Your task to perform on an android device: Open ESPN.com Image 0: 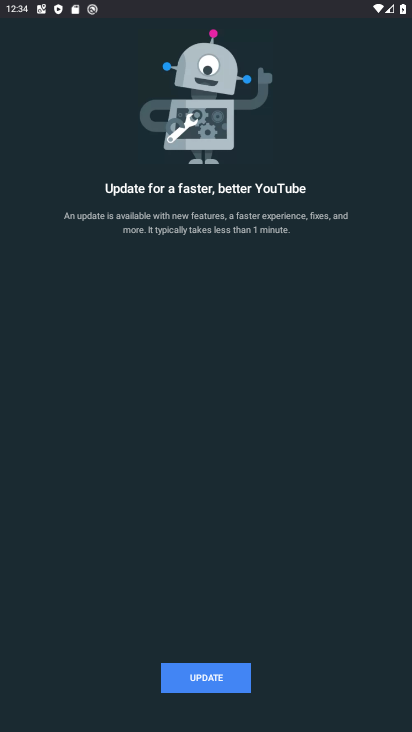
Step 0: press home button
Your task to perform on an android device: Open ESPN.com Image 1: 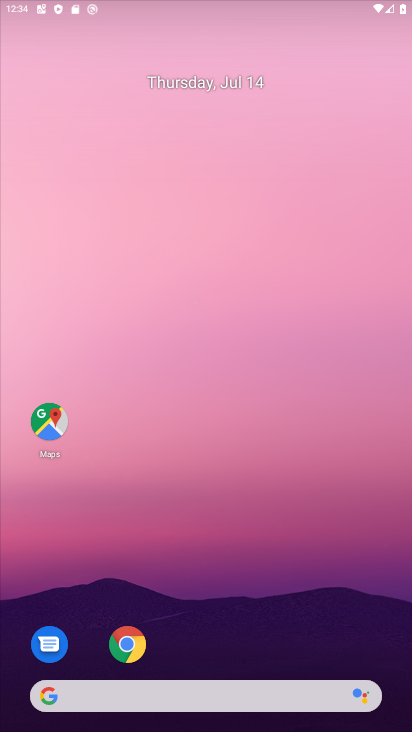
Step 1: drag from (238, 638) to (245, 128)
Your task to perform on an android device: Open ESPN.com Image 2: 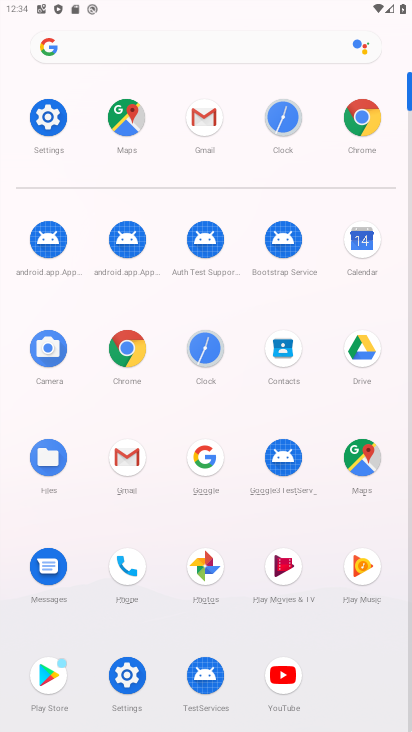
Step 2: click (114, 341)
Your task to perform on an android device: Open ESPN.com Image 3: 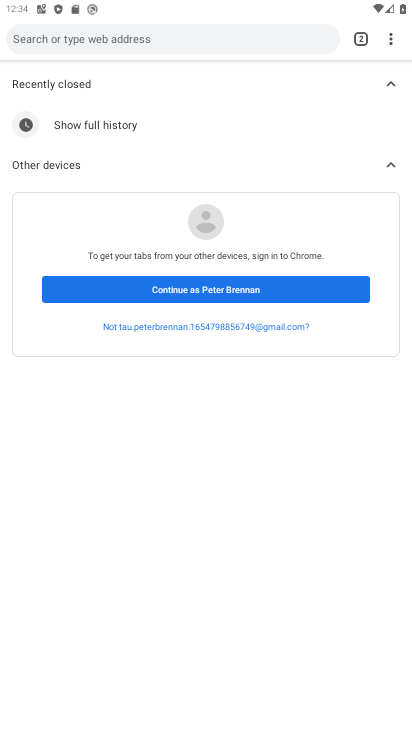
Step 3: click (138, 32)
Your task to perform on an android device: Open ESPN.com Image 4: 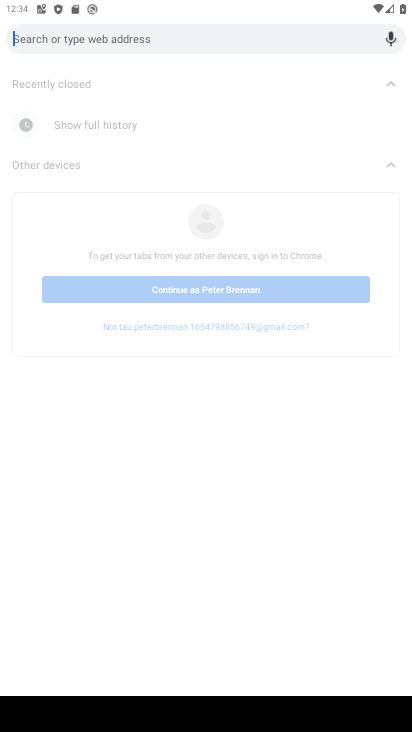
Step 4: type "espn.com"
Your task to perform on an android device: Open ESPN.com Image 5: 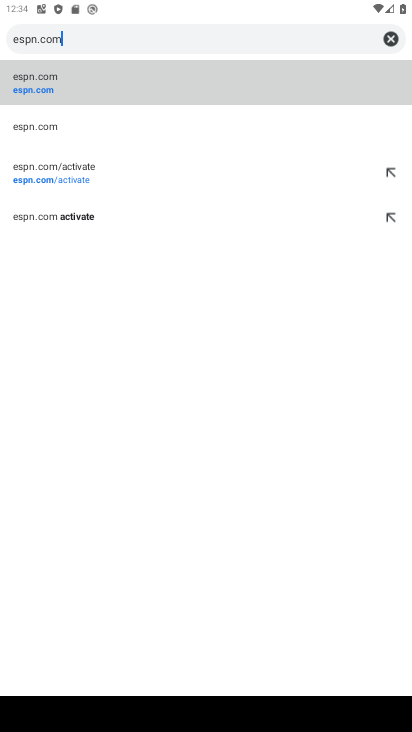
Step 5: click (74, 78)
Your task to perform on an android device: Open ESPN.com Image 6: 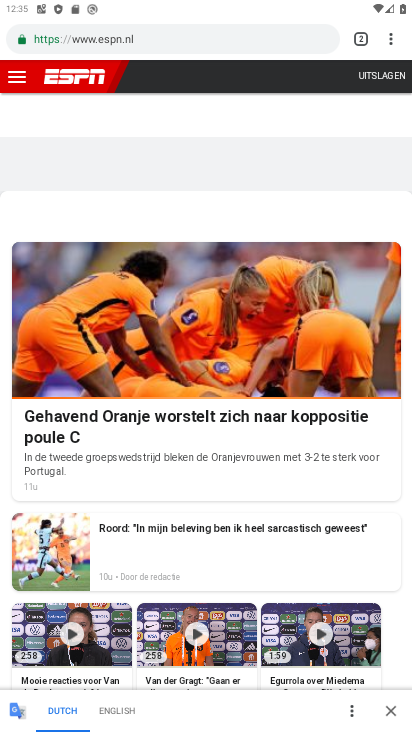
Step 6: task complete